Your task to perform on an android device: turn on showing notifications on the lock screen Image 0: 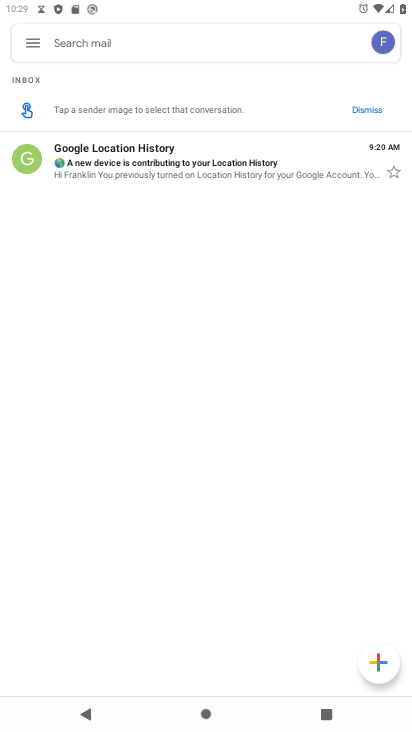
Step 0: press home button
Your task to perform on an android device: turn on showing notifications on the lock screen Image 1: 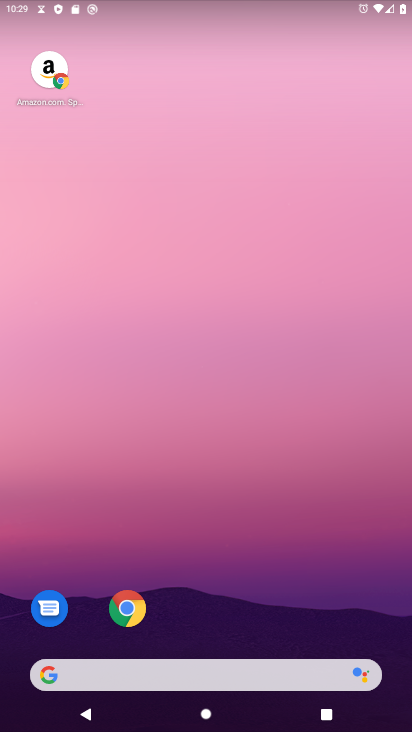
Step 1: drag from (147, 682) to (240, 188)
Your task to perform on an android device: turn on showing notifications on the lock screen Image 2: 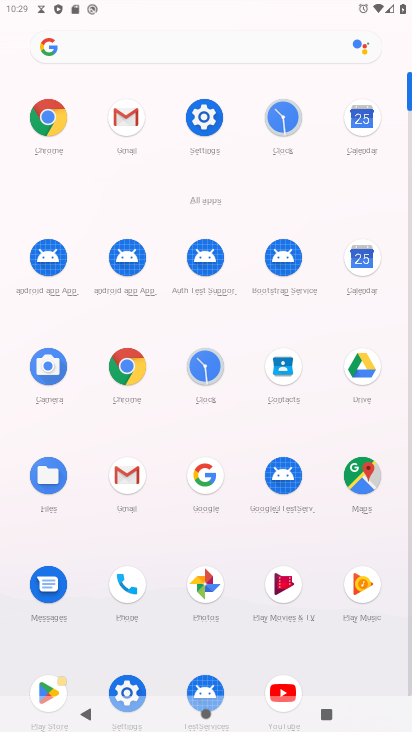
Step 2: click (204, 120)
Your task to perform on an android device: turn on showing notifications on the lock screen Image 3: 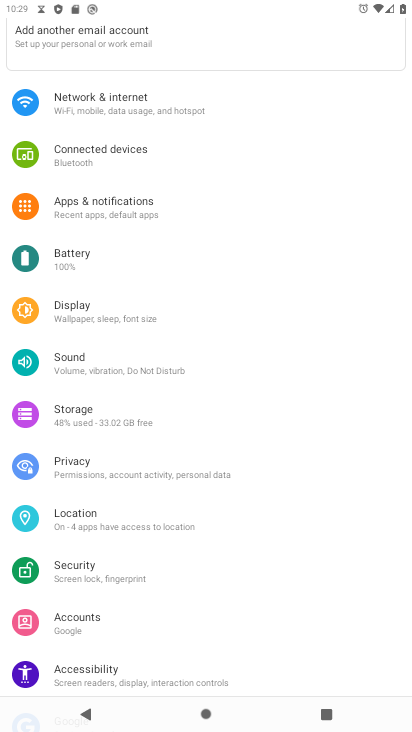
Step 3: click (122, 207)
Your task to perform on an android device: turn on showing notifications on the lock screen Image 4: 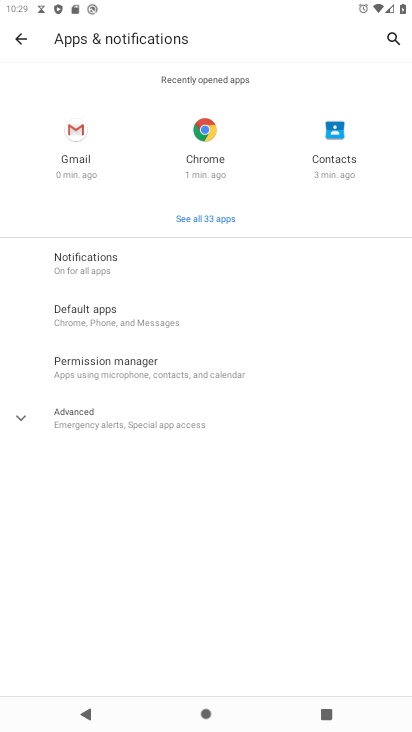
Step 4: click (110, 264)
Your task to perform on an android device: turn on showing notifications on the lock screen Image 5: 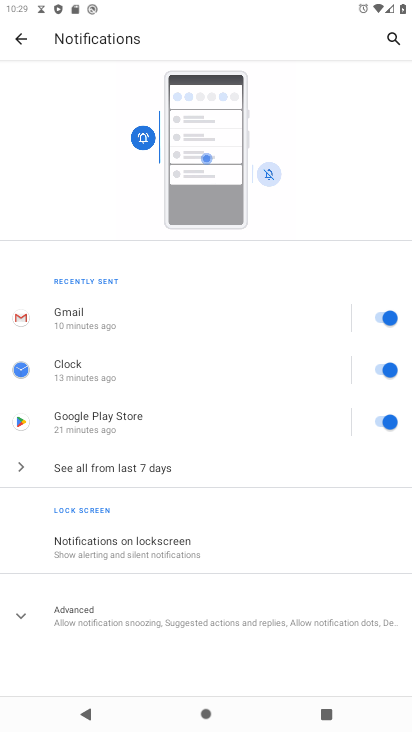
Step 5: click (142, 551)
Your task to perform on an android device: turn on showing notifications on the lock screen Image 6: 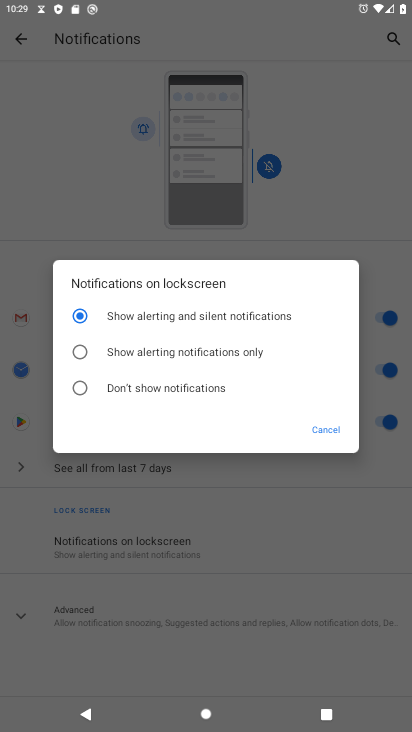
Step 6: click (81, 317)
Your task to perform on an android device: turn on showing notifications on the lock screen Image 7: 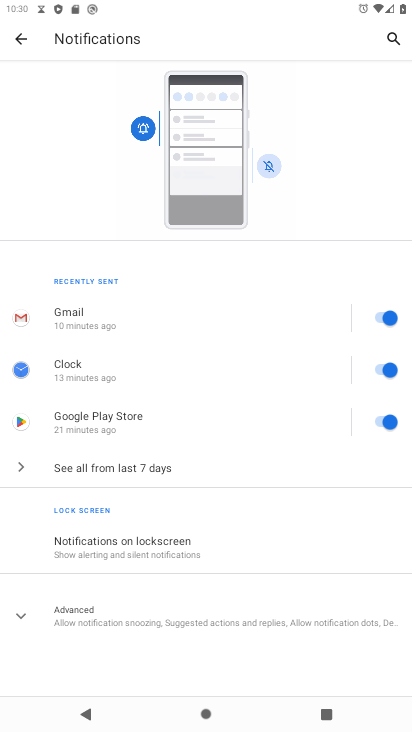
Step 7: task complete